Your task to perform on an android device: Play the last video I watched on Youtube Image 0: 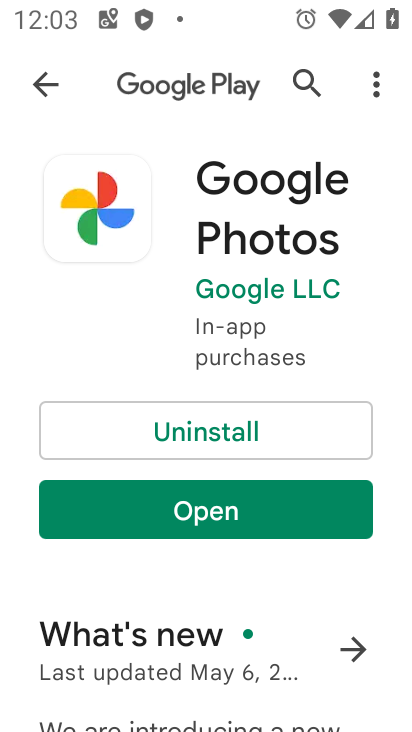
Step 0: press home button
Your task to perform on an android device: Play the last video I watched on Youtube Image 1: 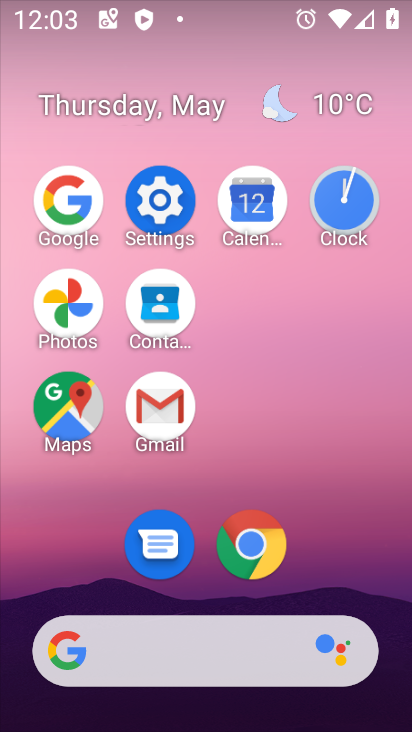
Step 1: drag from (313, 325) to (327, 152)
Your task to perform on an android device: Play the last video I watched on Youtube Image 2: 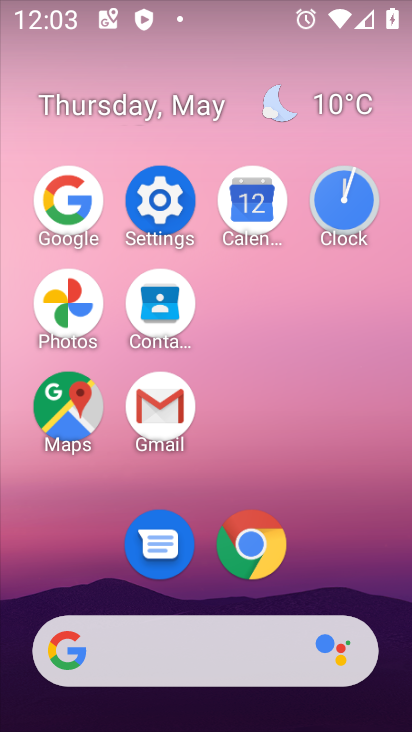
Step 2: drag from (328, 581) to (365, 34)
Your task to perform on an android device: Play the last video I watched on Youtube Image 3: 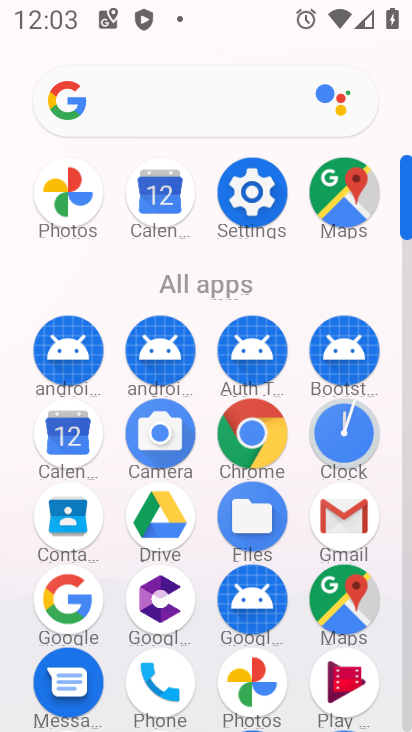
Step 3: drag from (248, 471) to (262, 129)
Your task to perform on an android device: Play the last video I watched on Youtube Image 4: 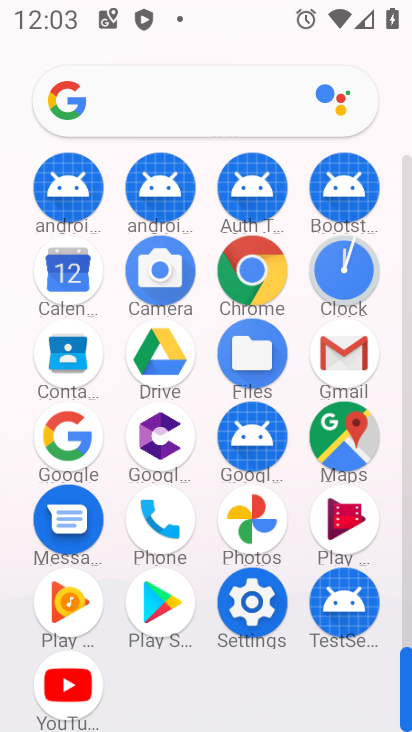
Step 4: click (57, 678)
Your task to perform on an android device: Play the last video I watched on Youtube Image 5: 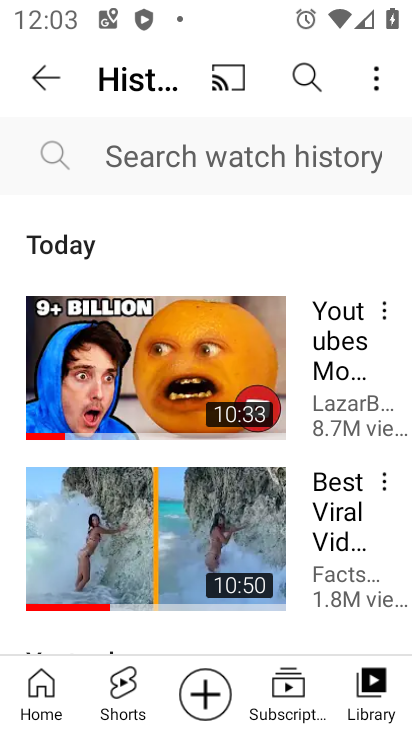
Step 5: task complete